Your task to perform on an android device: turn off location history Image 0: 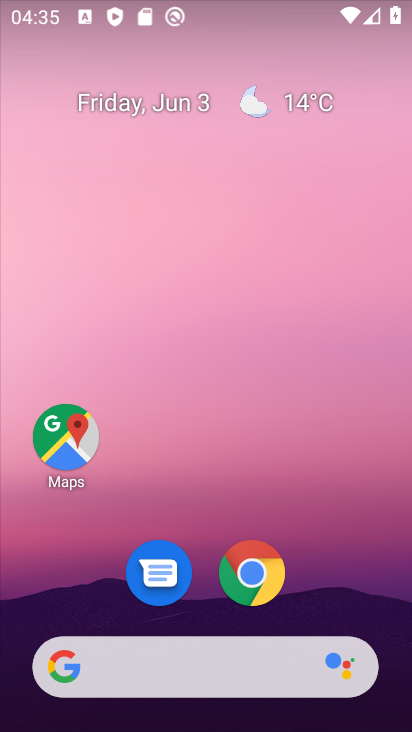
Step 0: drag from (195, 621) to (282, 104)
Your task to perform on an android device: turn off location history Image 1: 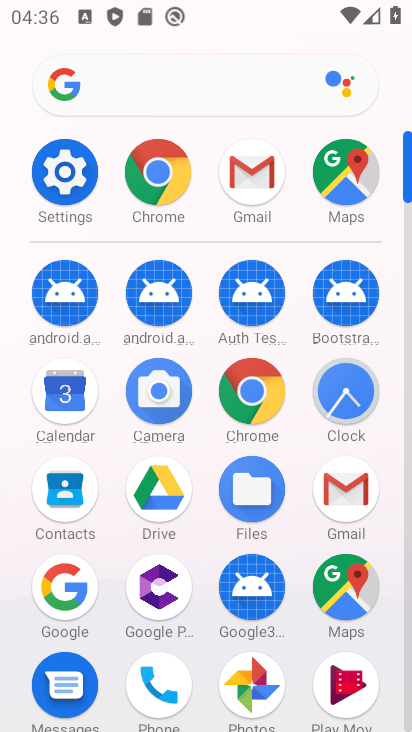
Step 1: click (51, 187)
Your task to perform on an android device: turn off location history Image 2: 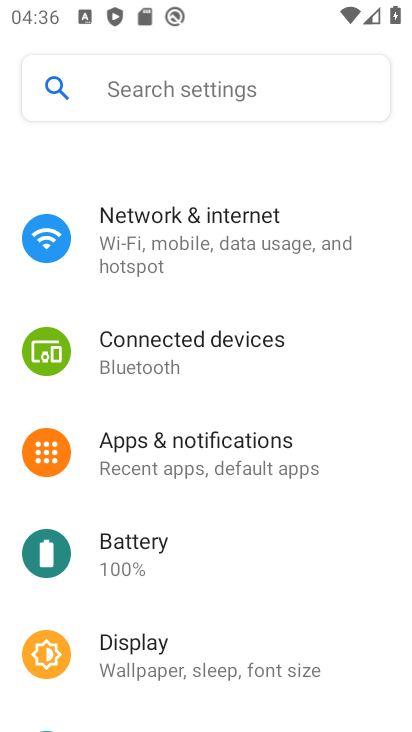
Step 2: drag from (217, 525) to (236, 130)
Your task to perform on an android device: turn off location history Image 3: 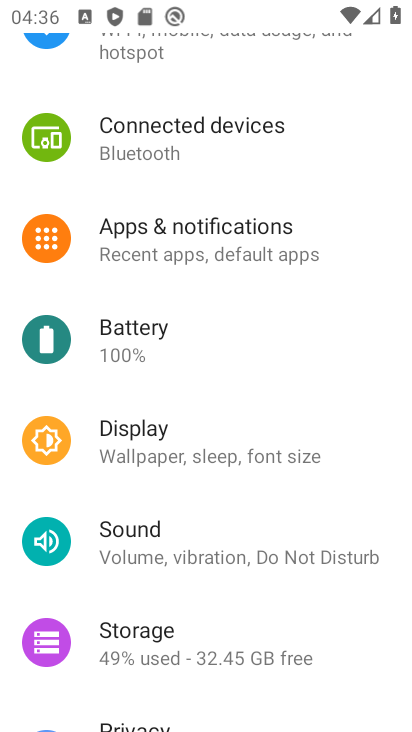
Step 3: drag from (222, 664) to (235, 233)
Your task to perform on an android device: turn off location history Image 4: 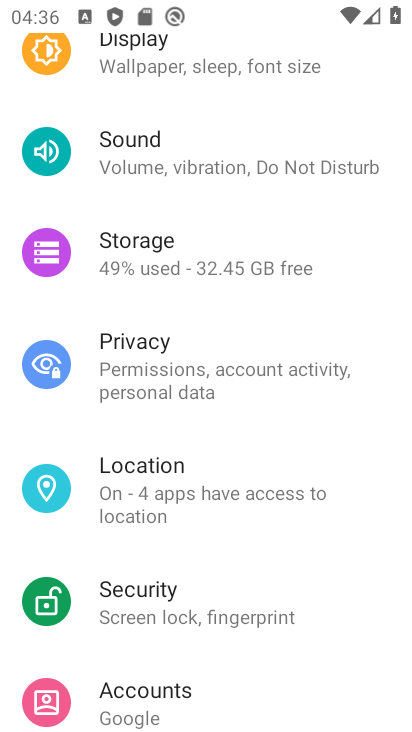
Step 4: click (202, 468)
Your task to perform on an android device: turn off location history Image 5: 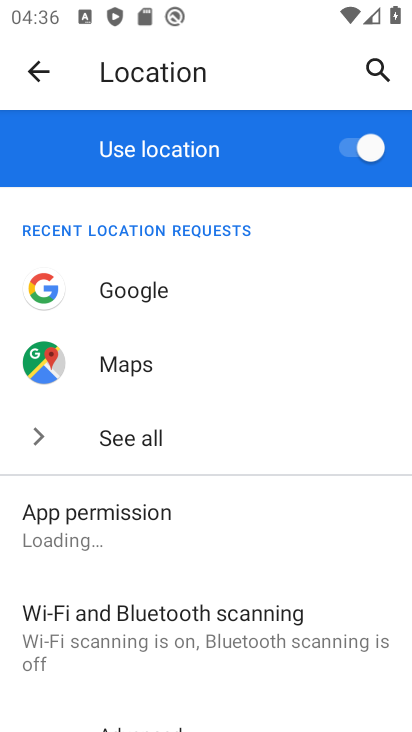
Step 5: drag from (241, 621) to (257, 175)
Your task to perform on an android device: turn off location history Image 6: 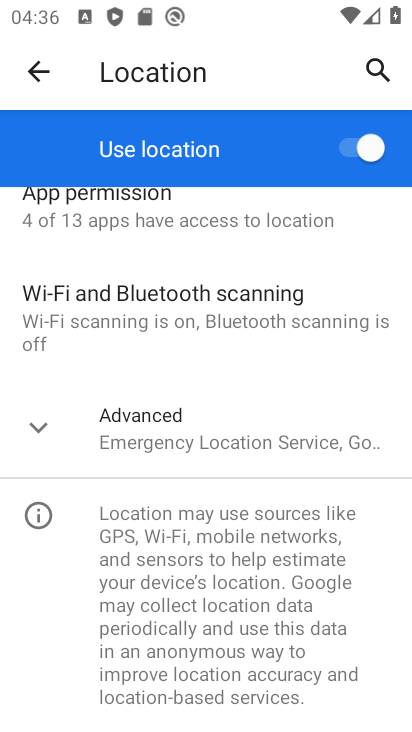
Step 6: click (206, 439)
Your task to perform on an android device: turn off location history Image 7: 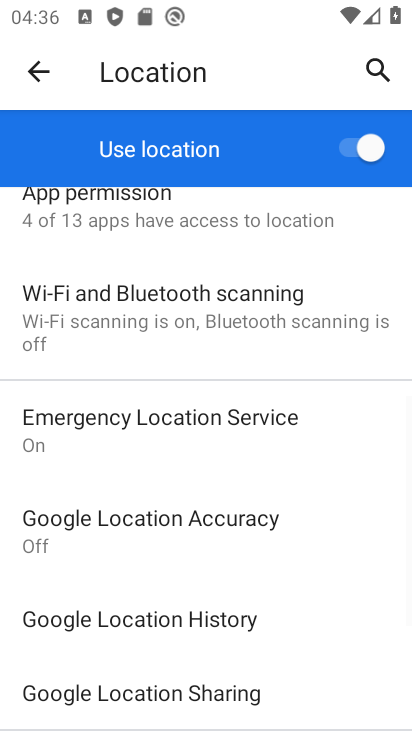
Step 7: drag from (292, 592) to (303, 259)
Your task to perform on an android device: turn off location history Image 8: 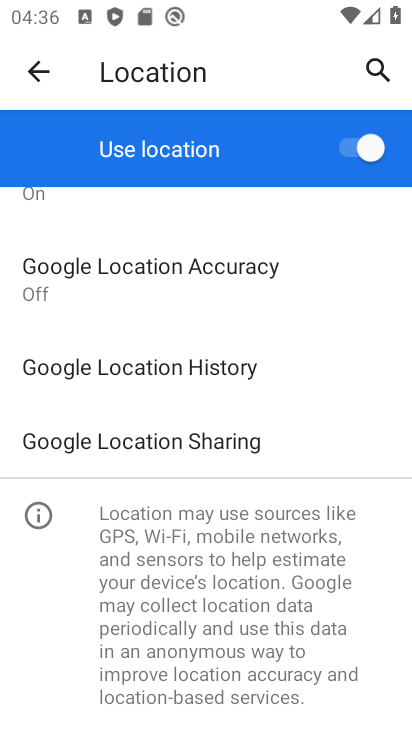
Step 8: click (215, 364)
Your task to perform on an android device: turn off location history Image 9: 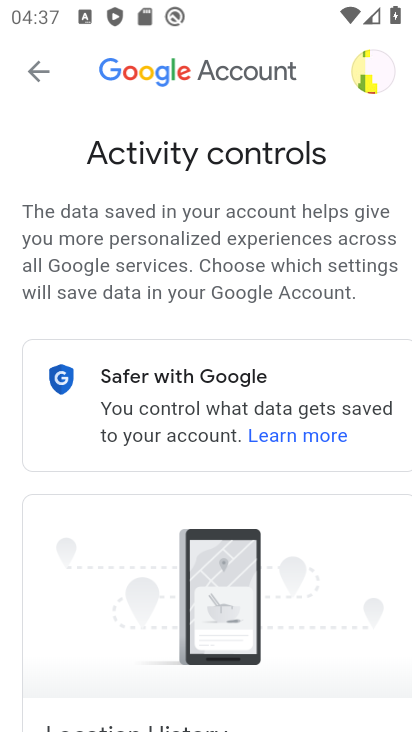
Step 9: task complete